Your task to perform on an android device: clear history in the chrome app Image 0: 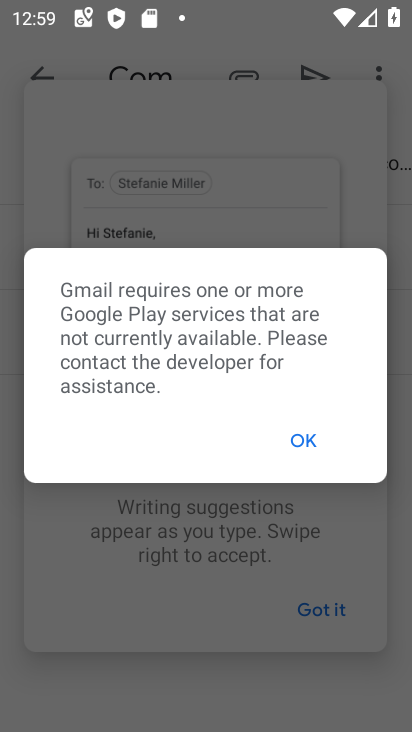
Step 0: press home button
Your task to perform on an android device: clear history in the chrome app Image 1: 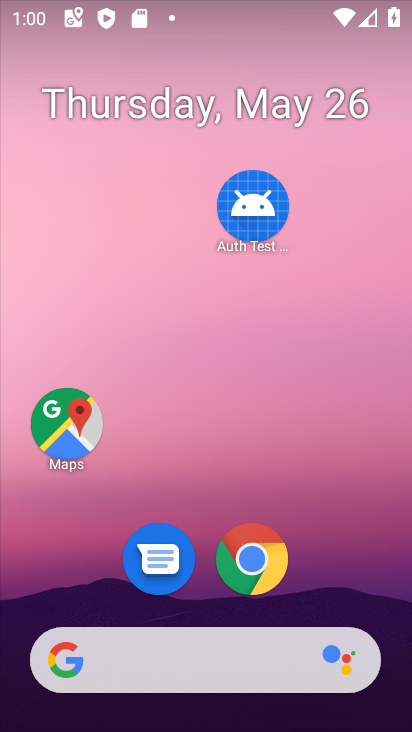
Step 1: drag from (326, 557) to (303, 516)
Your task to perform on an android device: clear history in the chrome app Image 2: 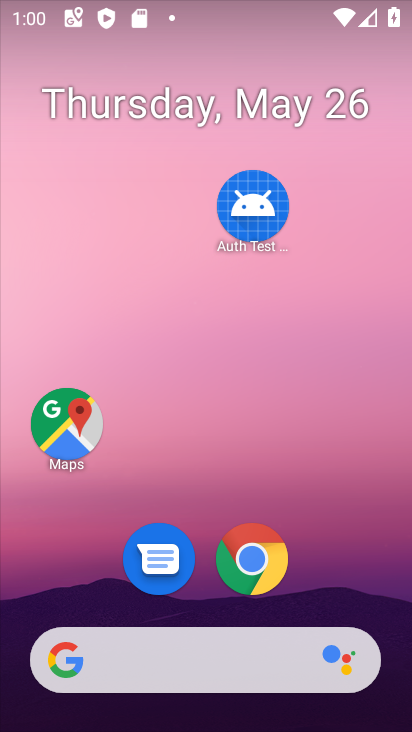
Step 2: click (261, 541)
Your task to perform on an android device: clear history in the chrome app Image 3: 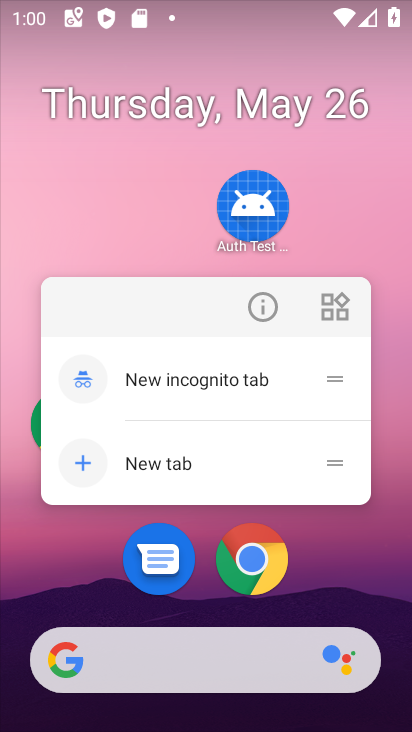
Step 3: click (263, 554)
Your task to perform on an android device: clear history in the chrome app Image 4: 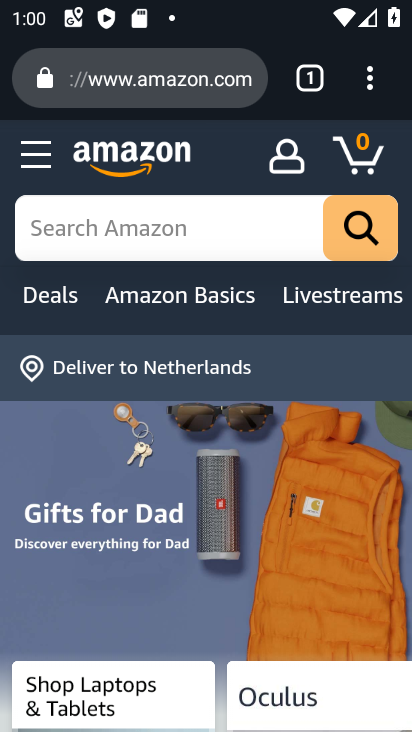
Step 4: click (365, 72)
Your task to perform on an android device: clear history in the chrome app Image 5: 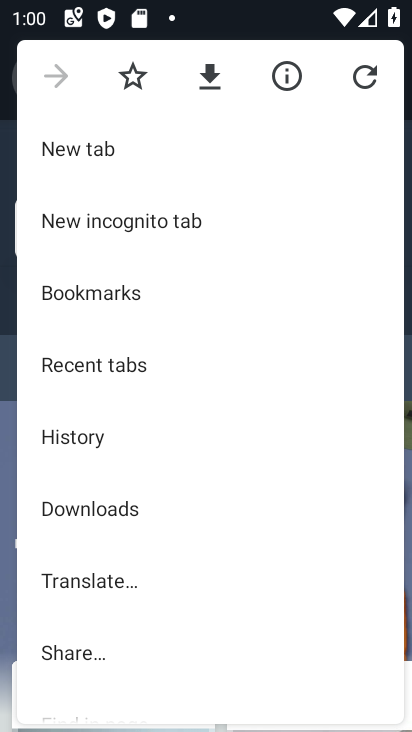
Step 5: click (115, 428)
Your task to perform on an android device: clear history in the chrome app Image 6: 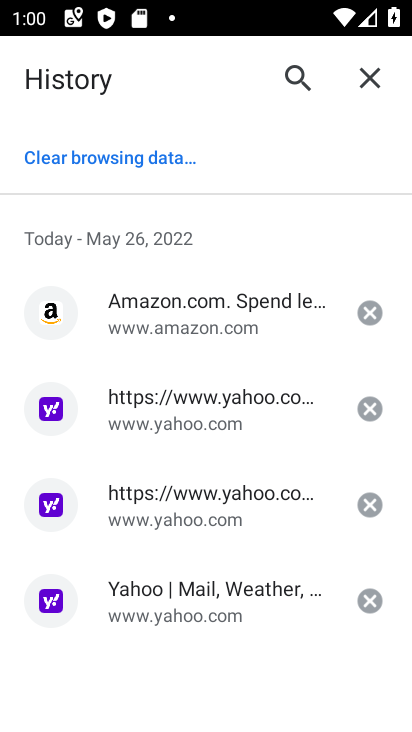
Step 6: click (165, 146)
Your task to perform on an android device: clear history in the chrome app Image 7: 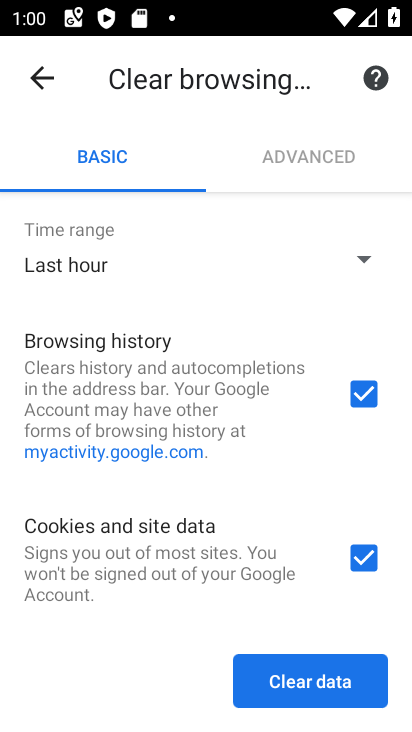
Step 7: click (342, 251)
Your task to perform on an android device: clear history in the chrome app Image 8: 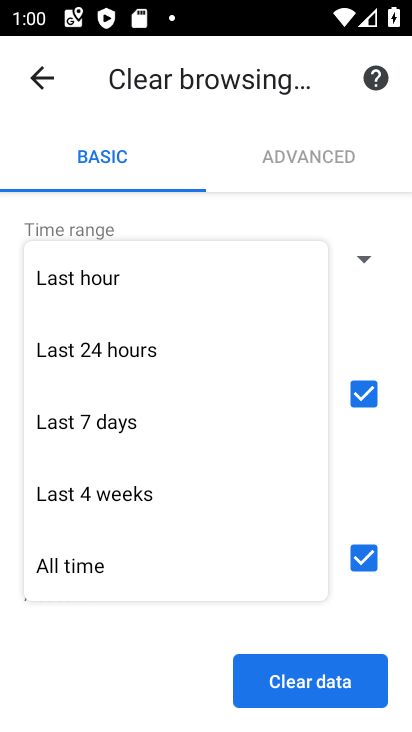
Step 8: click (148, 553)
Your task to perform on an android device: clear history in the chrome app Image 9: 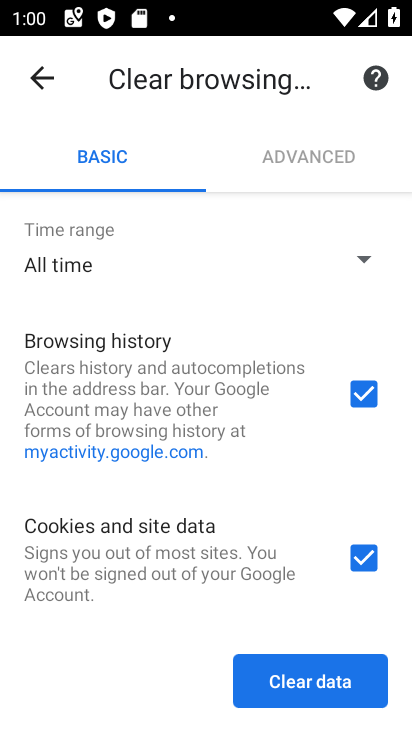
Step 9: click (373, 553)
Your task to perform on an android device: clear history in the chrome app Image 10: 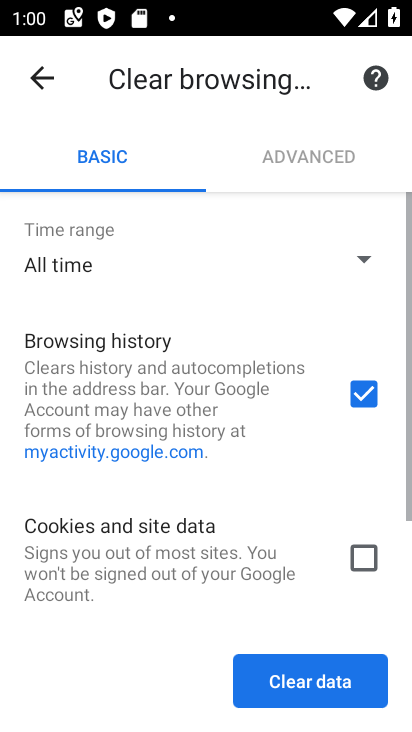
Step 10: click (330, 678)
Your task to perform on an android device: clear history in the chrome app Image 11: 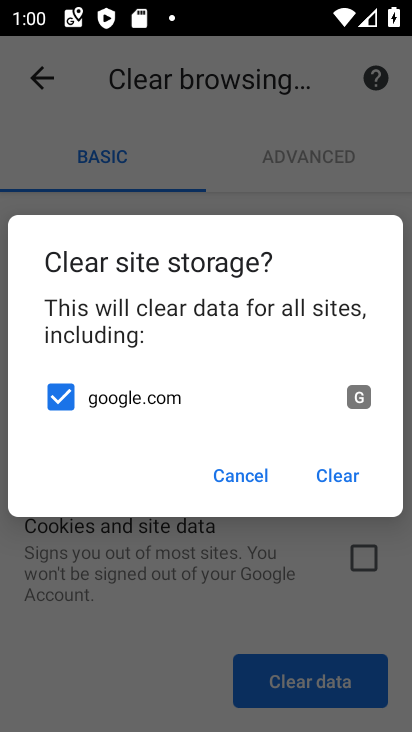
Step 11: click (332, 472)
Your task to perform on an android device: clear history in the chrome app Image 12: 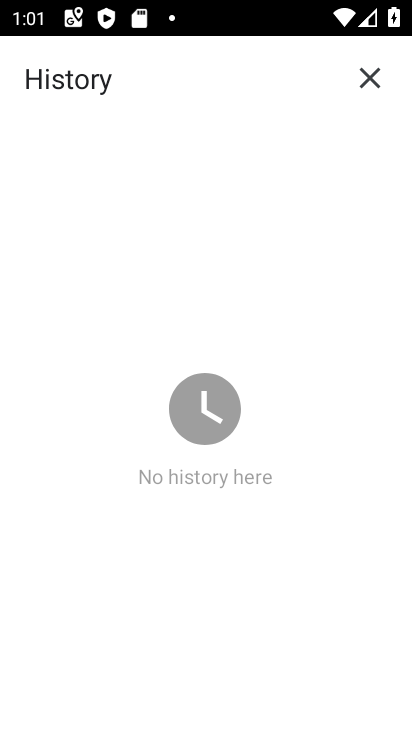
Step 12: task complete